Your task to perform on an android device: uninstall "AliExpress" Image 0: 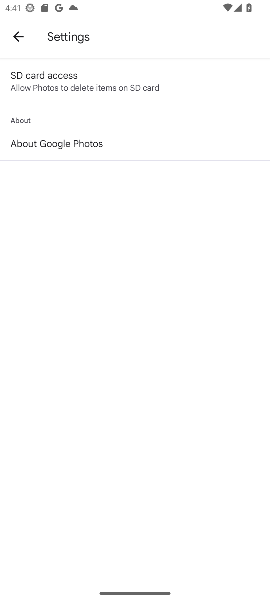
Step 0: press home button
Your task to perform on an android device: uninstall "AliExpress" Image 1: 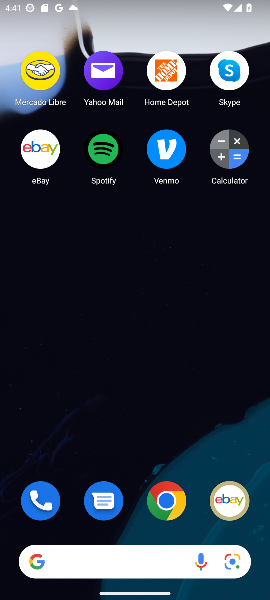
Step 1: drag from (157, 387) to (188, 58)
Your task to perform on an android device: uninstall "AliExpress" Image 2: 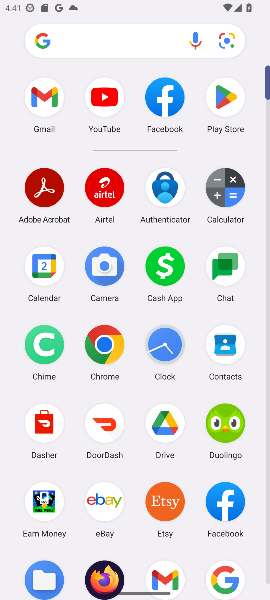
Step 2: click (216, 94)
Your task to perform on an android device: uninstall "AliExpress" Image 3: 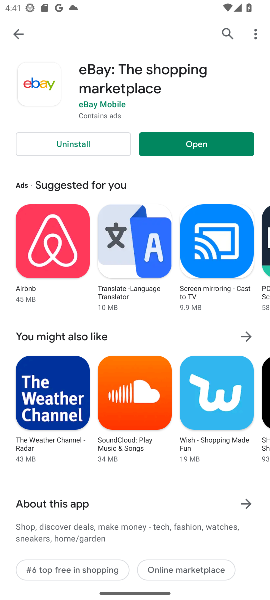
Step 3: click (222, 32)
Your task to perform on an android device: uninstall "AliExpress" Image 4: 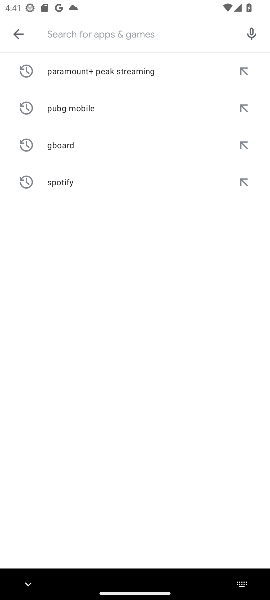
Step 4: type "AliExpress"
Your task to perform on an android device: uninstall "AliExpress" Image 5: 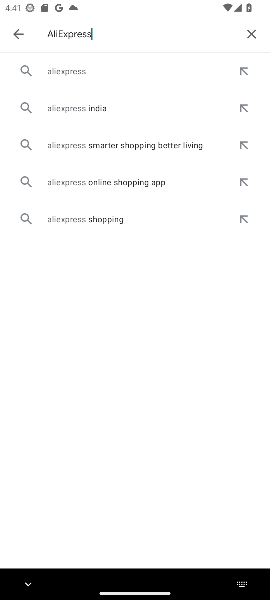
Step 5: click (80, 70)
Your task to perform on an android device: uninstall "AliExpress" Image 6: 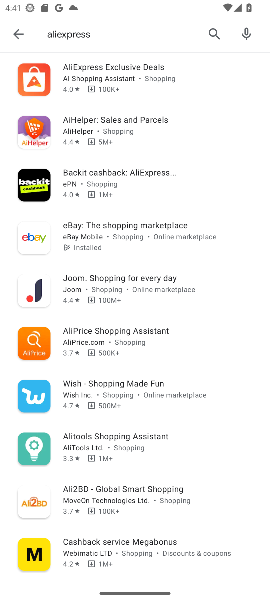
Step 6: click (77, 76)
Your task to perform on an android device: uninstall "AliExpress" Image 7: 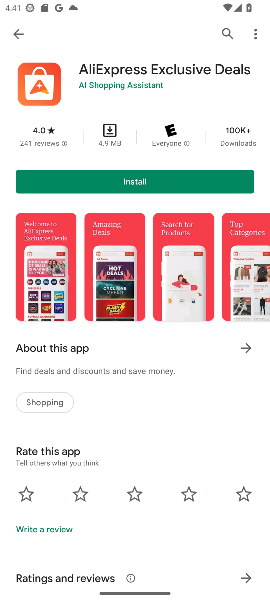
Step 7: task complete